Your task to perform on an android device: Go to calendar. Show me events next week Image 0: 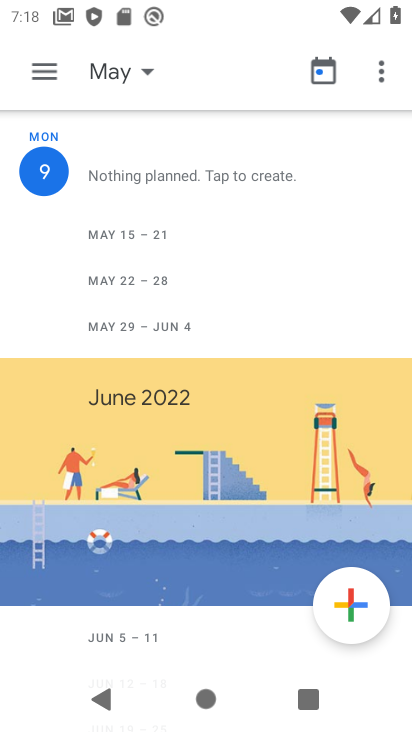
Step 0: drag from (262, 675) to (332, 253)
Your task to perform on an android device: Go to calendar. Show me events next week Image 1: 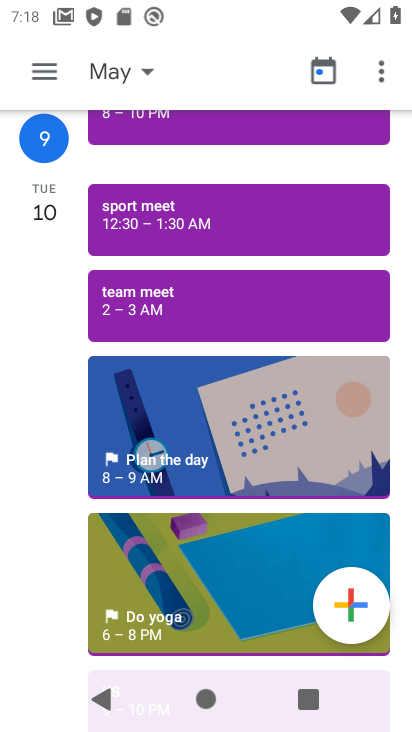
Step 1: press home button
Your task to perform on an android device: Go to calendar. Show me events next week Image 2: 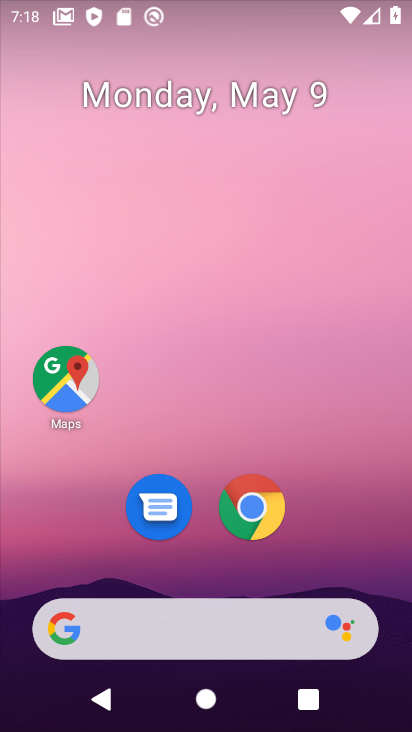
Step 2: drag from (276, 664) to (240, 269)
Your task to perform on an android device: Go to calendar. Show me events next week Image 3: 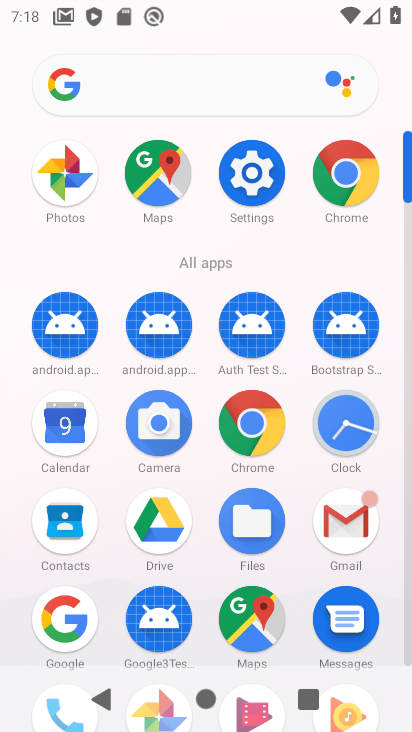
Step 3: click (81, 423)
Your task to perform on an android device: Go to calendar. Show me events next week Image 4: 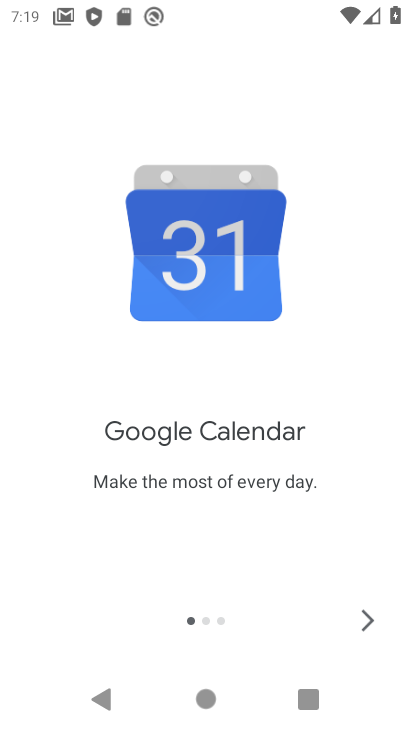
Step 4: click (333, 626)
Your task to perform on an android device: Go to calendar. Show me events next week Image 5: 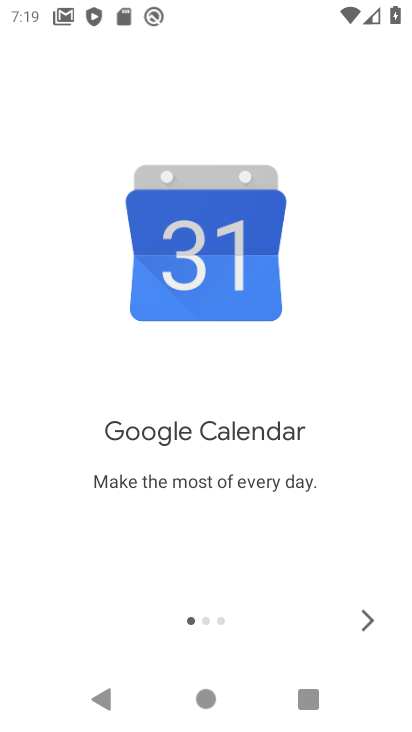
Step 5: click (371, 625)
Your task to perform on an android device: Go to calendar. Show me events next week Image 6: 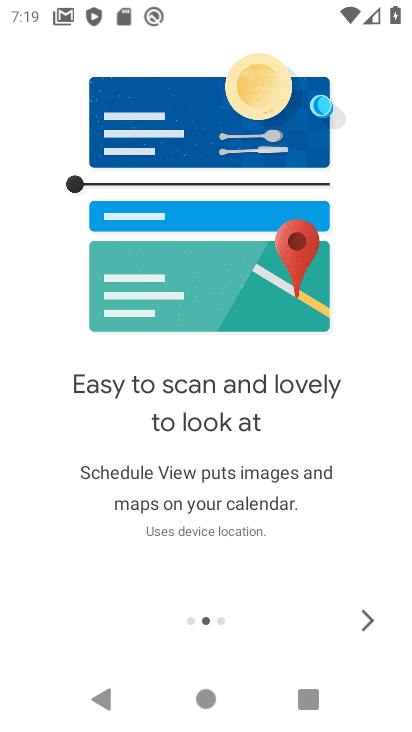
Step 6: click (370, 613)
Your task to perform on an android device: Go to calendar. Show me events next week Image 7: 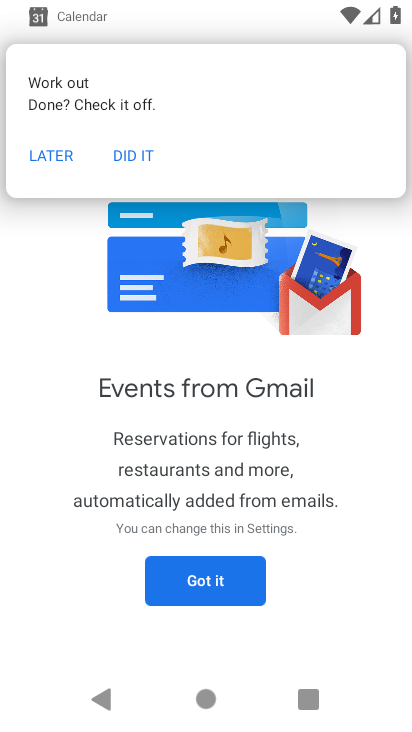
Step 7: click (241, 584)
Your task to perform on an android device: Go to calendar. Show me events next week Image 8: 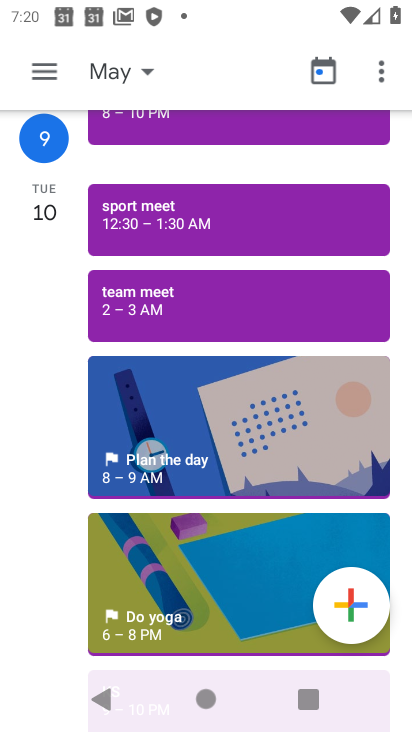
Step 8: click (37, 80)
Your task to perform on an android device: Go to calendar. Show me events next week Image 9: 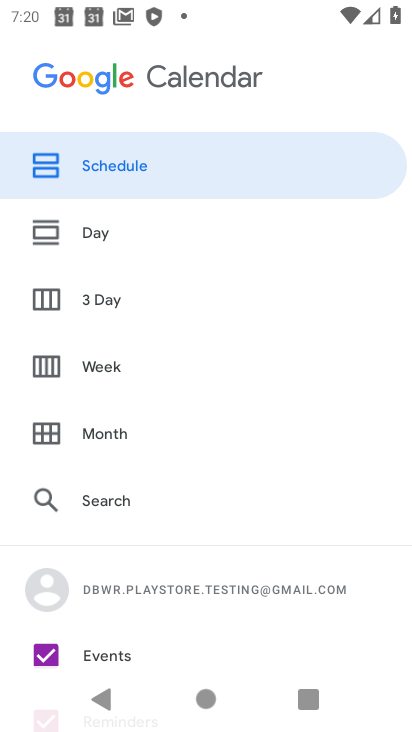
Step 9: click (149, 437)
Your task to perform on an android device: Go to calendar. Show me events next week Image 10: 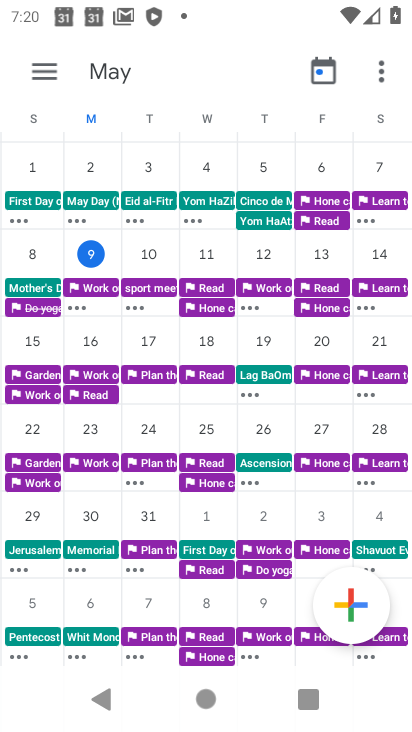
Step 10: click (86, 354)
Your task to perform on an android device: Go to calendar. Show me events next week Image 11: 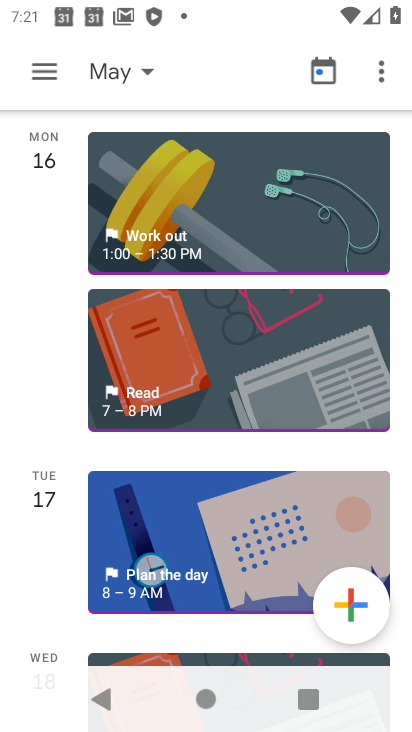
Step 11: task complete